Your task to perform on an android device: Open Google Image 0: 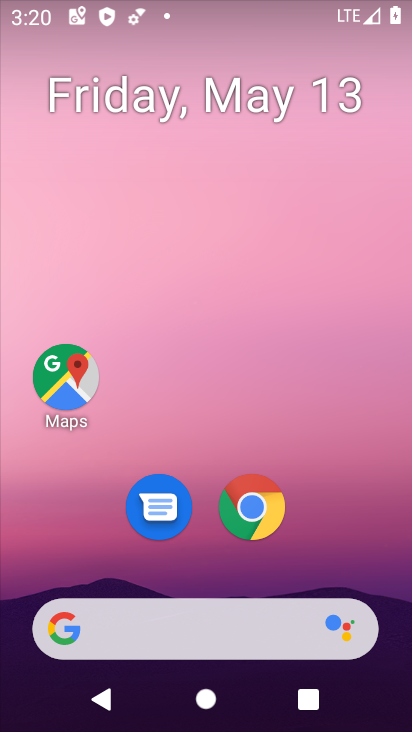
Step 0: drag from (334, 471) to (286, 7)
Your task to perform on an android device: Open Google Image 1: 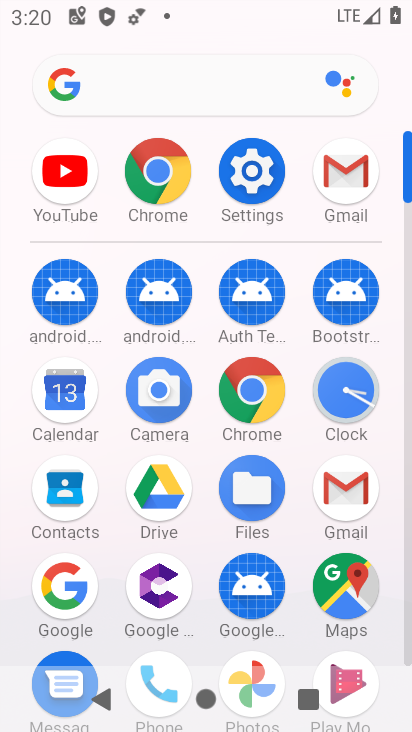
Step 1: click (76, 590)
Your task to perform on an android device: Open Google Image 2: 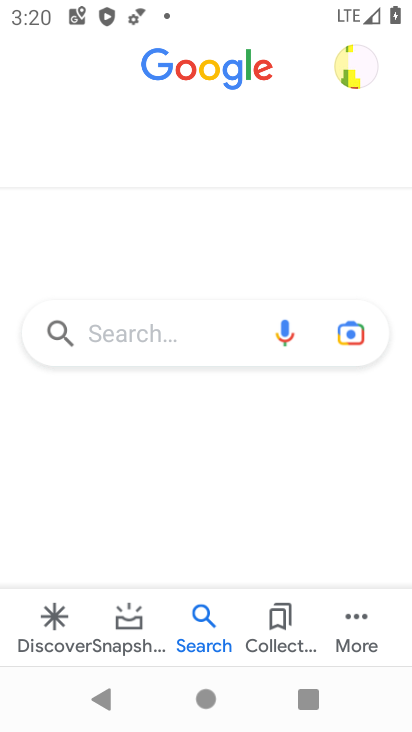
Step 2: task complete